Your task to perform on an android device: Open calendar and show me the fourth week of next month Image 0: 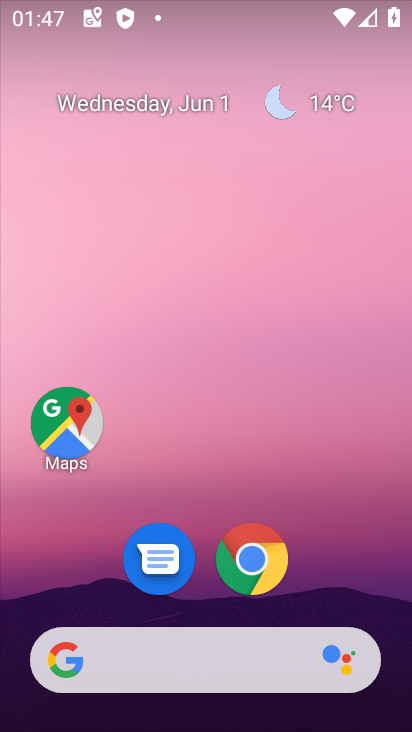
Step 0: drag from (395, 698) to (319, 80)
Your task to perform on an android device: Open calendar and show me the fourth week of next month Image 1: 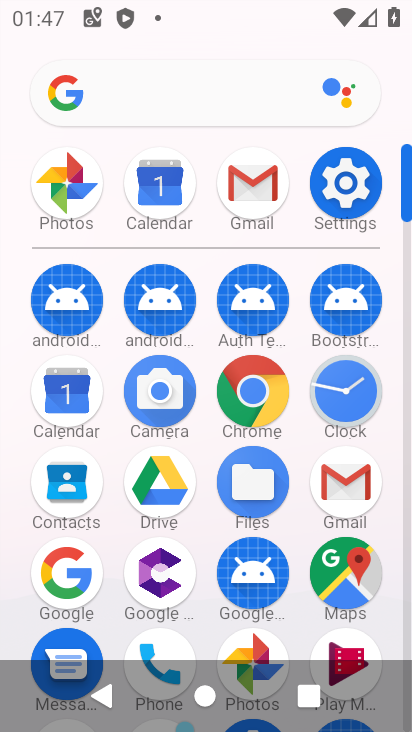
Step 1: click (351, 182)
Your task to perform on an android device: Open calendar and show me the fourth week of next month Image 2: 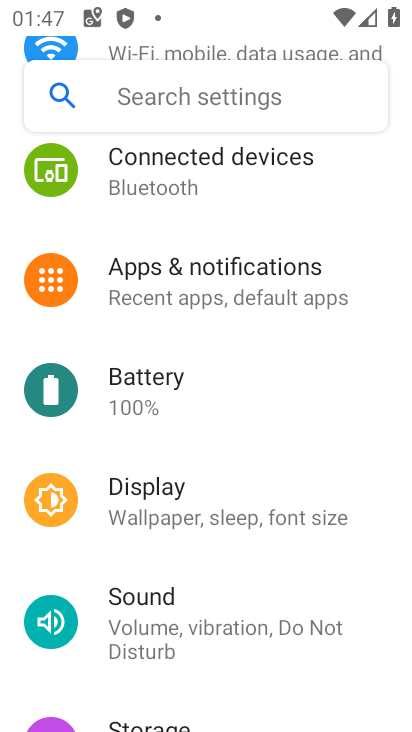
Step 2: drag from (326, 674) to (356, 196)
Your task to perform on an android device: Open calendar and show me the fourth week of next month Image 3: 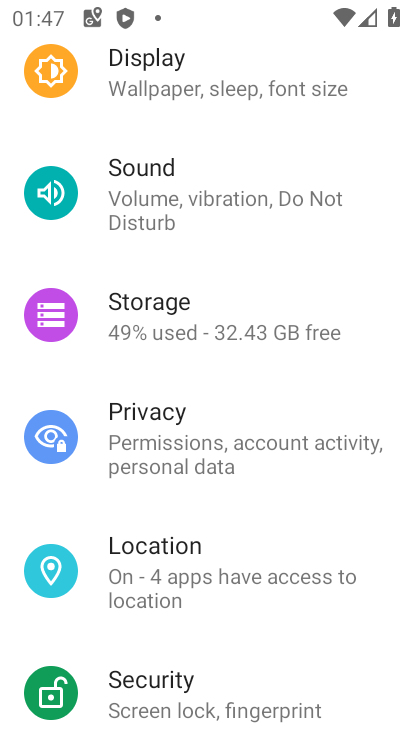
Step 3: drag from (324, 688) to (348, 274)
Your task to perform on an android device: Open calendar and show me the fourth week of next month Image 4: 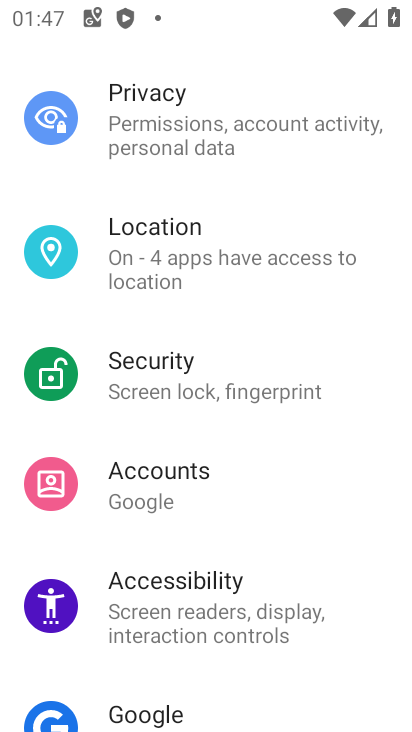
Step 4: drag from (286, 682) to (270, 315)
Your task to perform on an android device: Open calendar and show me the fourth week of next month Image 5: 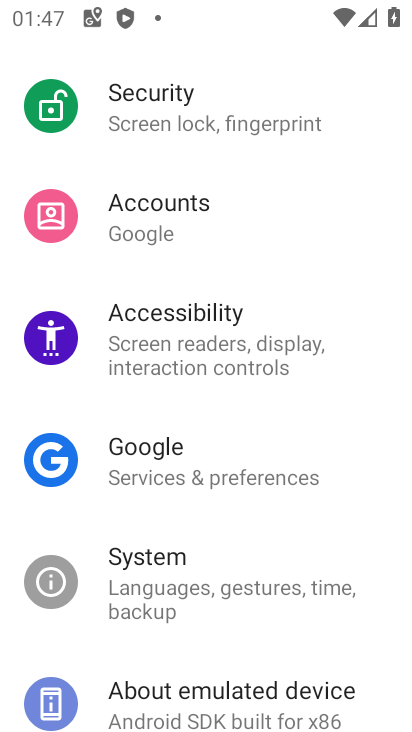
Step 5: press home button
Your task to perform on an android device: Open calendar and show me the fourth week of next month Image 6: 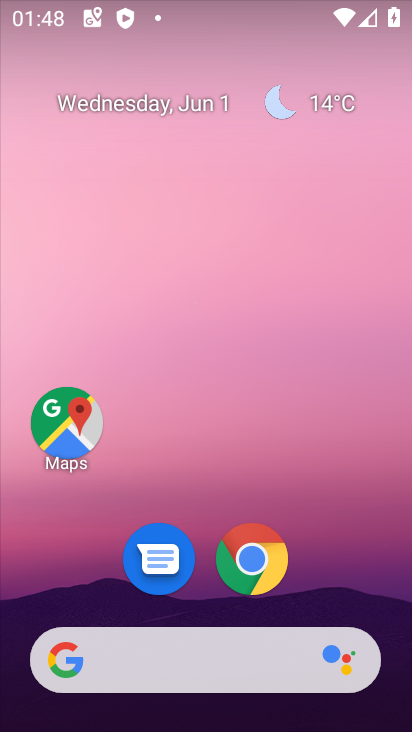
Step 6: drag from (389, 654) to (335, 71)
Your task to perform on an android device: Open calendar and show me the fourth week of next month Image 7: 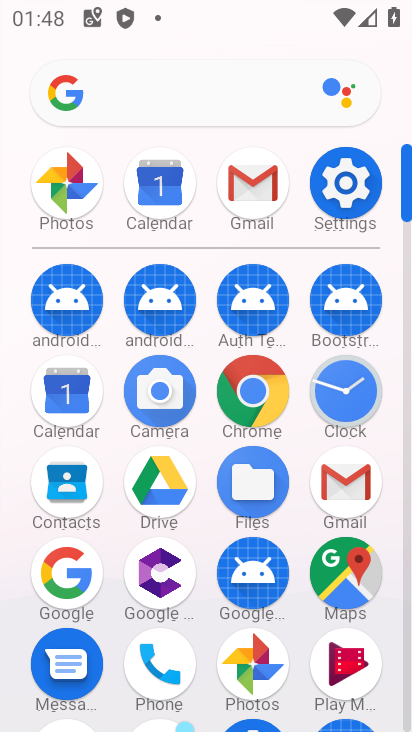
Step 7: click (64, 402)
Your task to perform on an android device: Open calendar and show me the fourth week of next month Image 8: 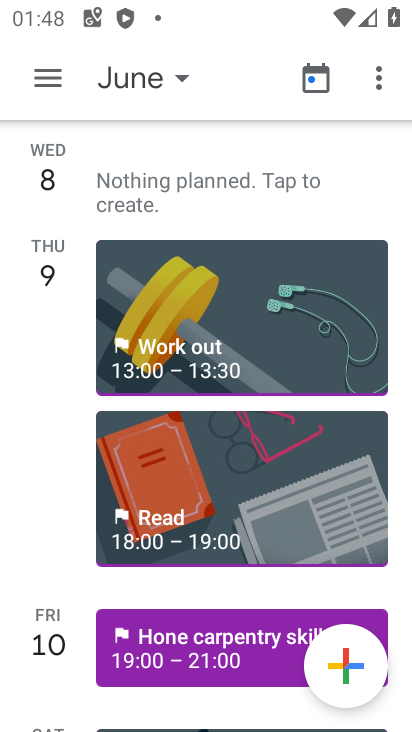
Step 8: click (178, 80)
Your task to perform on an android device: Open calendar and show me the fourth week of next month Image 9: 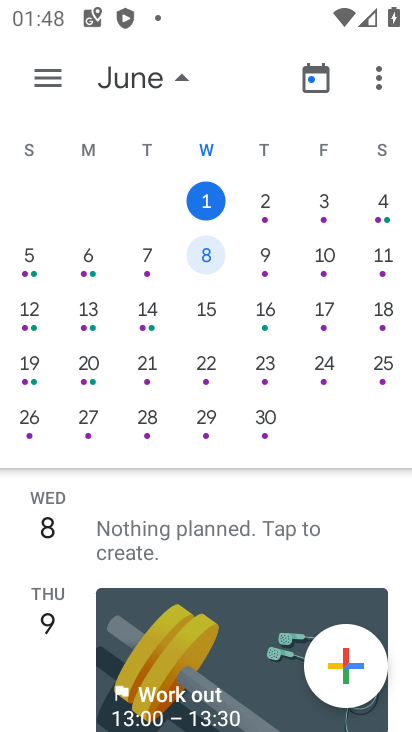
Step 9: drag from (397, 299) to (125, 320)
Your task to perform on an android device: Open calendar and show me the fourth week of next month Image 10: 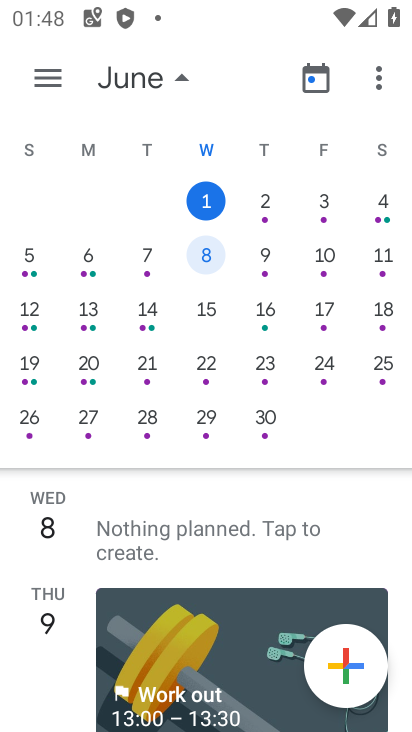
Step 10: drag from (396, 318) to (11, 318)
Your task to perform on an android device: Open calendar and show me the fourth week of next month Image 11: 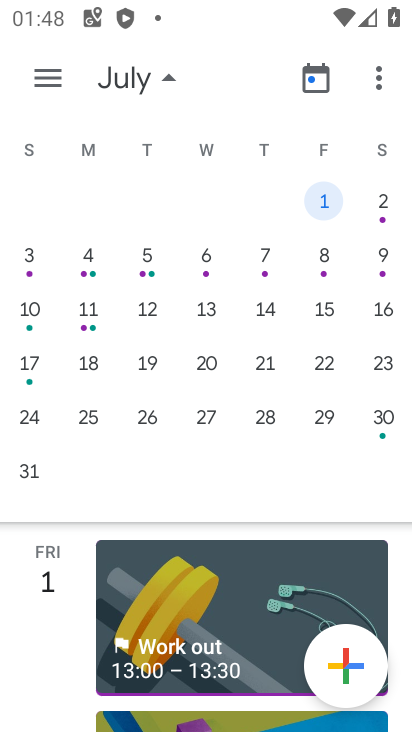
Step 11: drag from (402, 284) to (61, 284)
Your task to perform on an android device: Open calendar and show me the fourth week of next month Image 12: 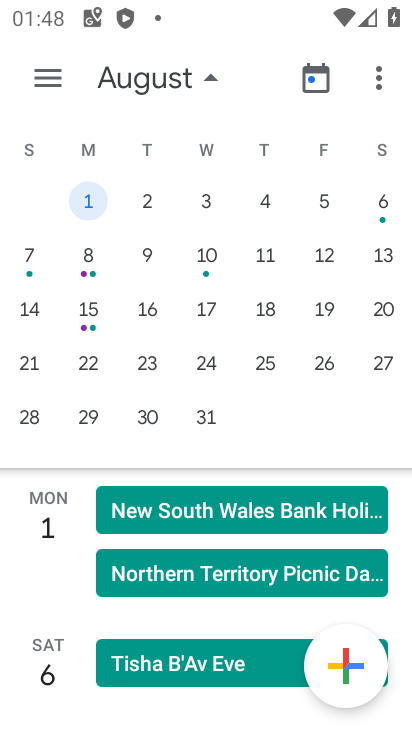
Step 12: drag from (13, 232) to (352, 254)
Your task to perform on an android device: Open calendar and show me the fourth week of next month Image 13: 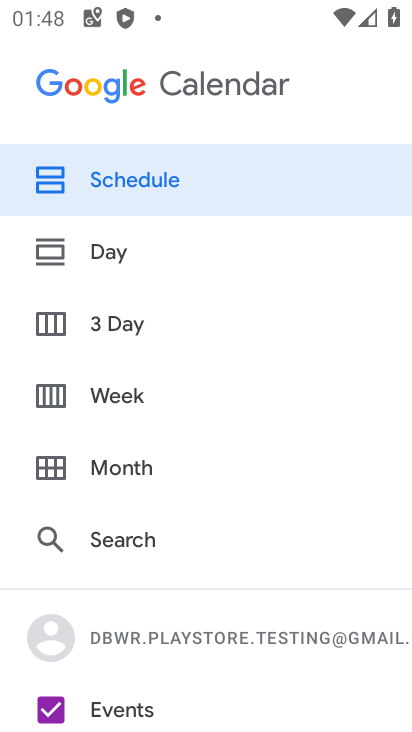
Step 13: press back button
Your task to perform on an android device: Open calendar and show me the fourth week of next month Image 14: 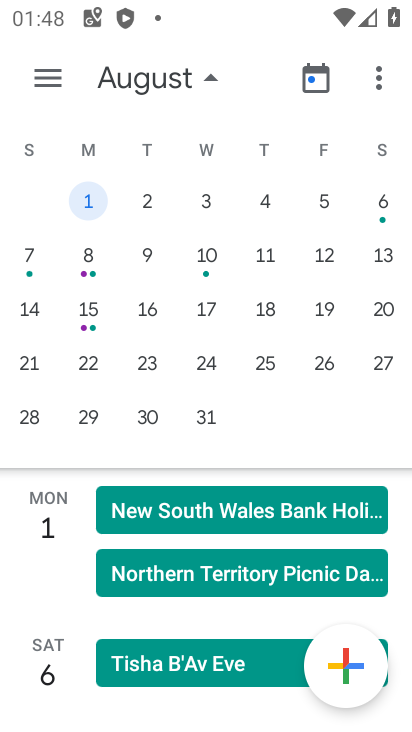
Step 14: drag from (61, 207) to (373, 209)
Your task to perform on an android device: Open calendar and show me the fourth week of next month Image 15: 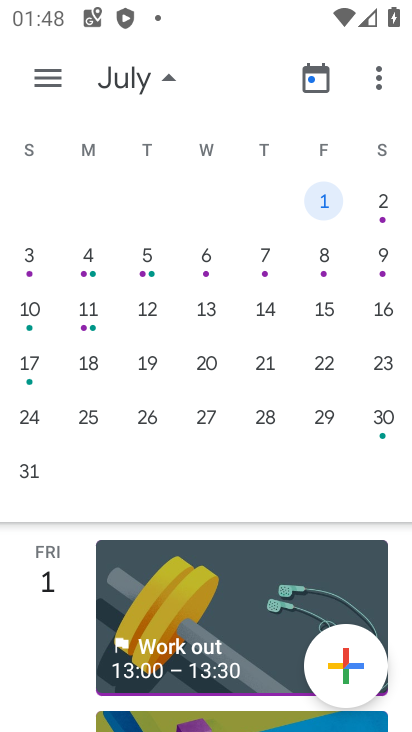
Step 15: click (269, 360)
Your task to perform on an android device: Open calendar and show me the fourth week of next month Image 16: 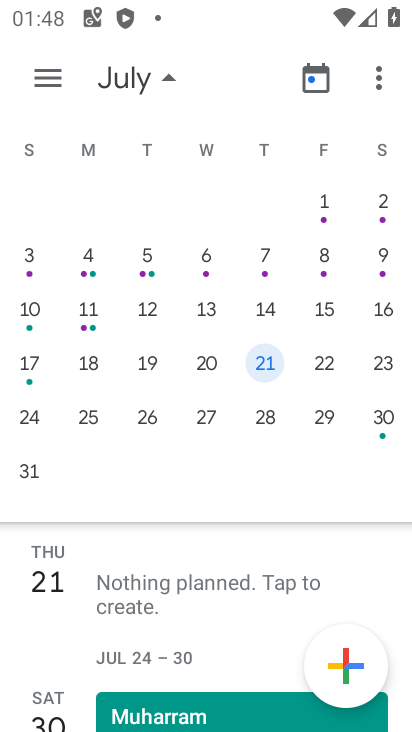
Step 16: task complete